Your task to perform on an android device: Search for Mexican restaurants on Maps Image 0: 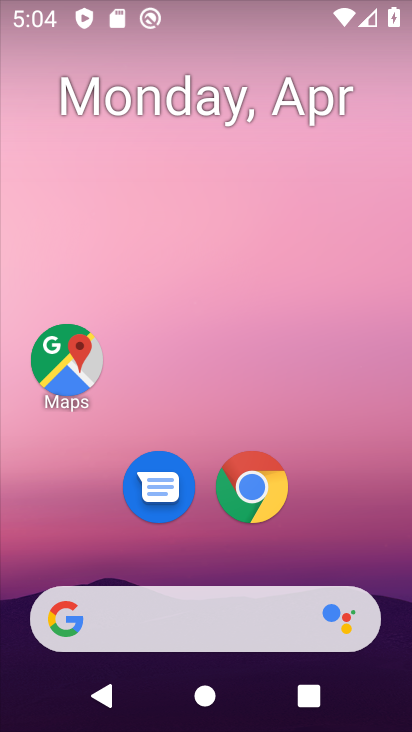
Step 0: click (262, 475)
Your task to perform on an android device: Search for Mexican restaurants on Maps Image 1: 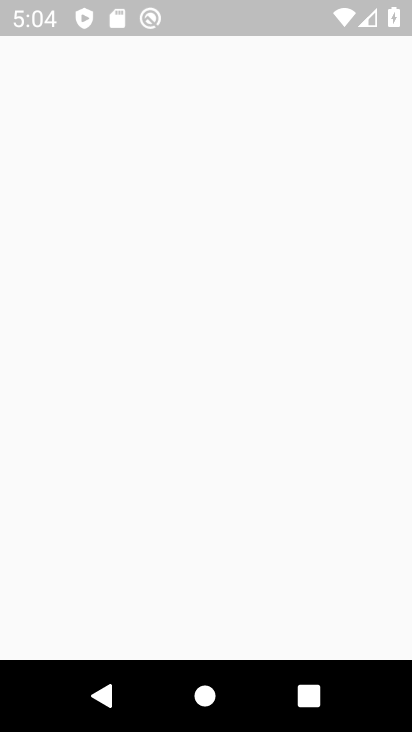
Step 1: press home button
Your task to perform on an android device: Search for Mexican restaurants on Maps Image 2: 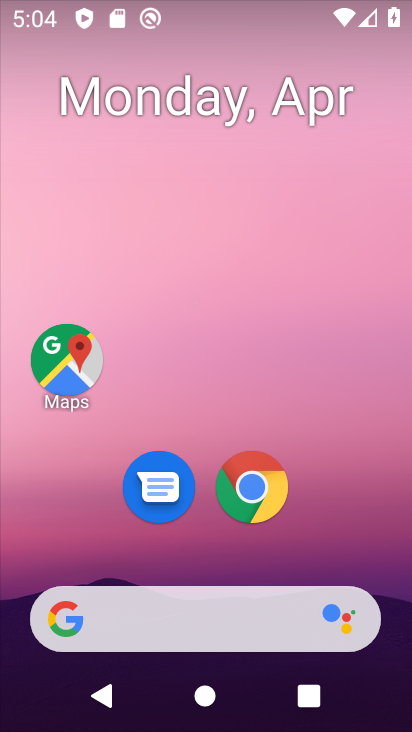
Step 2: click (75, 373)
Your task to perform on an android device: Search for Mexican restaurants on Maps Image 3: 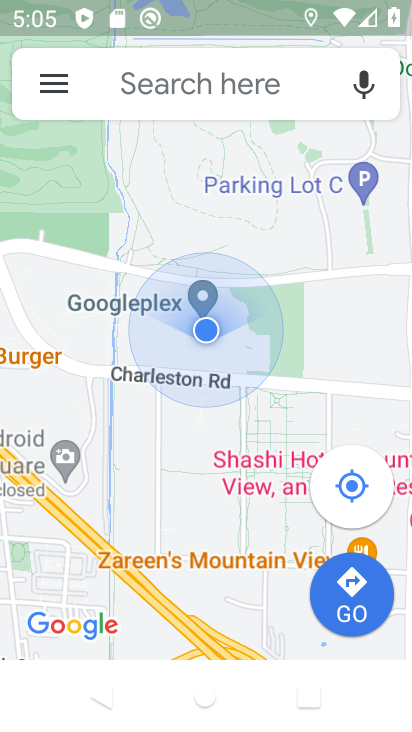
Step 3: click (228, 95)
Your task to perform on an android device: Search for Mexican restaurants on Maps Image 4: 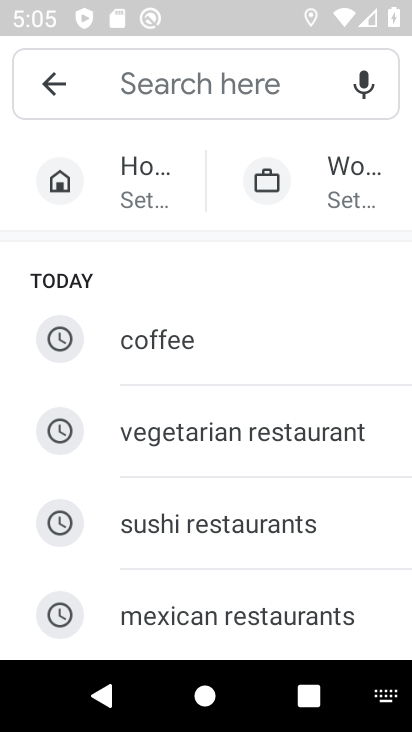
Step 4: click (265, 615)
Your task to perform on an android device: Search for Mexican restaurants on Maps Image 5: 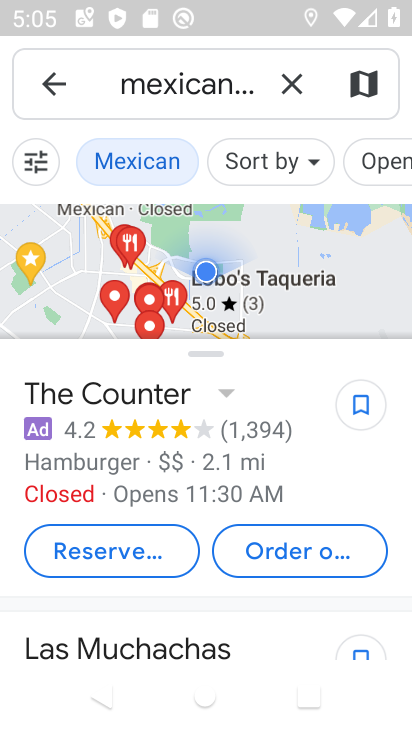
Step 5: task complete